Your task to perform on an android device: Open Android settings Image 0: 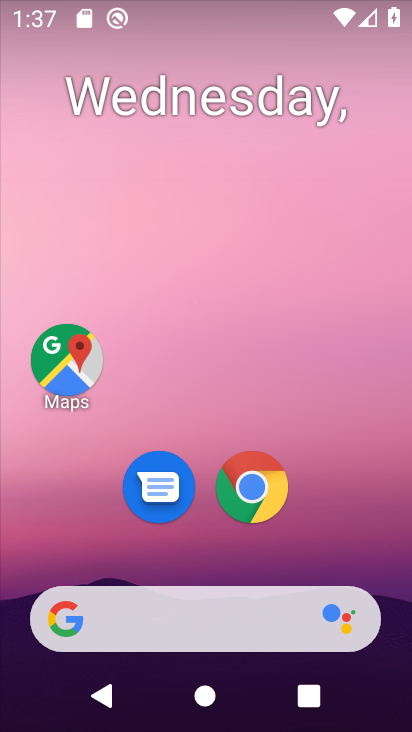
Step 0: drag from (290, 607) to (277, 59)
Your task to perform on an android device: Open Android settings Image 1: 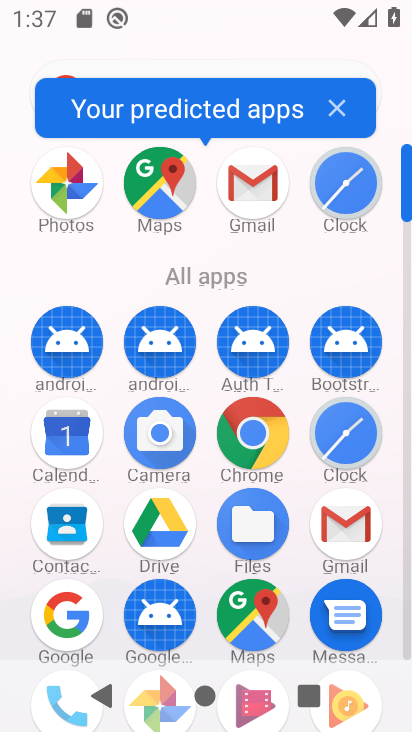
Step 1: drag from (303, 605) to (284, 242)
Your task to perform on an android device: Open Android settings Image 2: 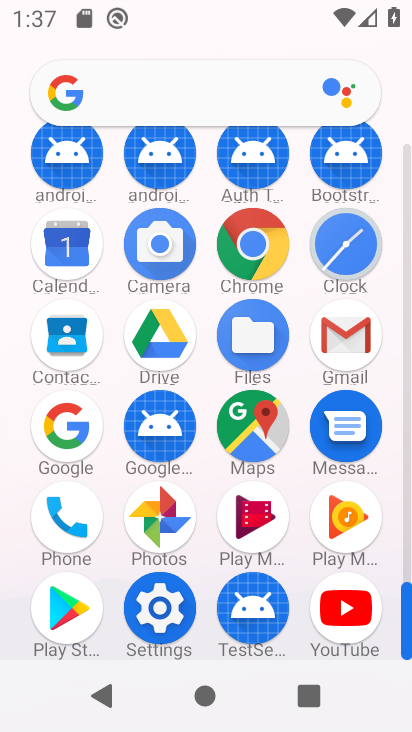
Step 2: click (171, 608)
Your task to perform on an android device: Open Android settings Image 3: 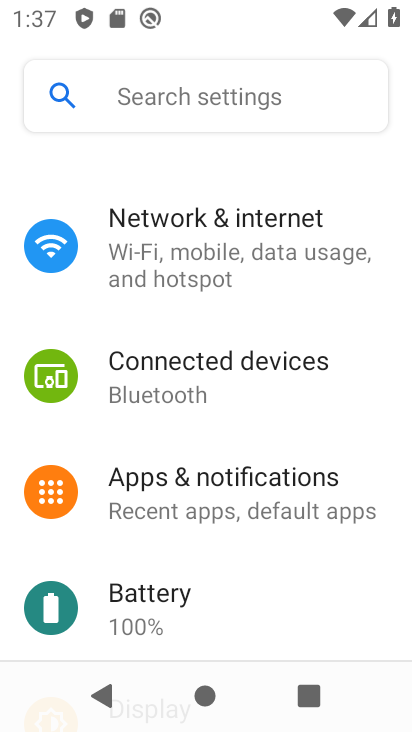
Step 3: drag from (299, 595) to (388, 3)
Your task to perform on an android device: Open Android settings Image 4: 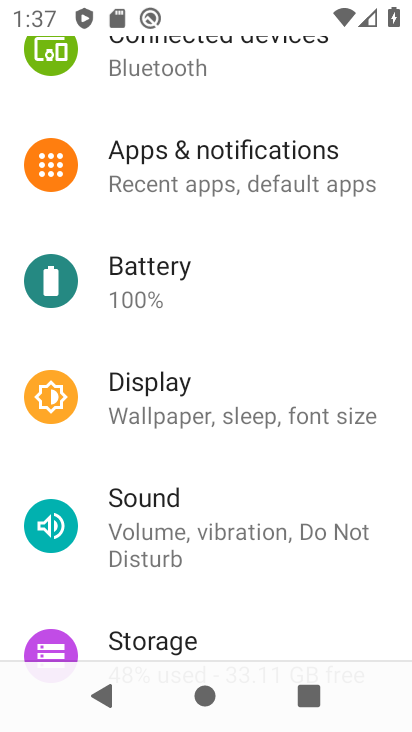
Step 4: drag from (300, 574) to (299, 54)
Your task to perform on an android device: Open Android settings Image 5: 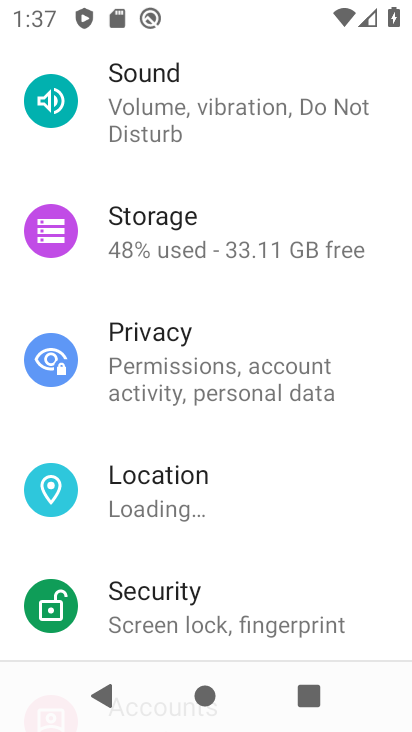
Step 5: drag from (238, 603) to (290, 2)
Your task to perform on an android device: Open Android settings Image 6: 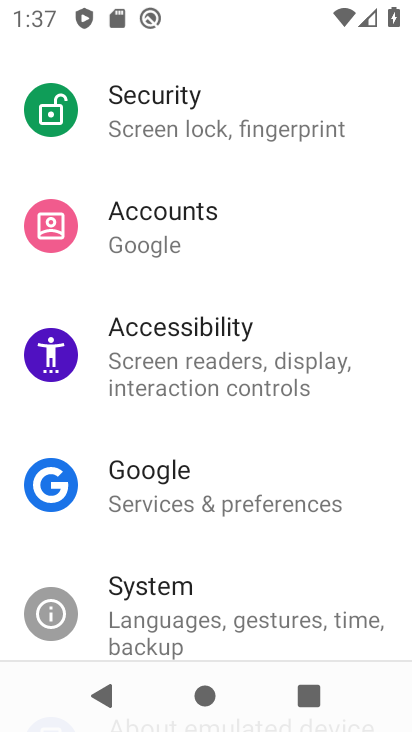
Step 6: drag from (249, 634) to (276, 173)
Your task to perform on an android device: Open Android settings Image 7: 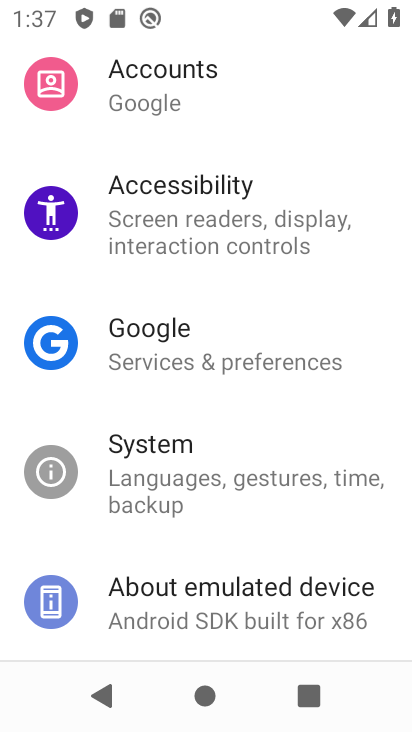
Step 7: click (255, 605)
Your task to perform on an android device: Open Android settings Image 8: 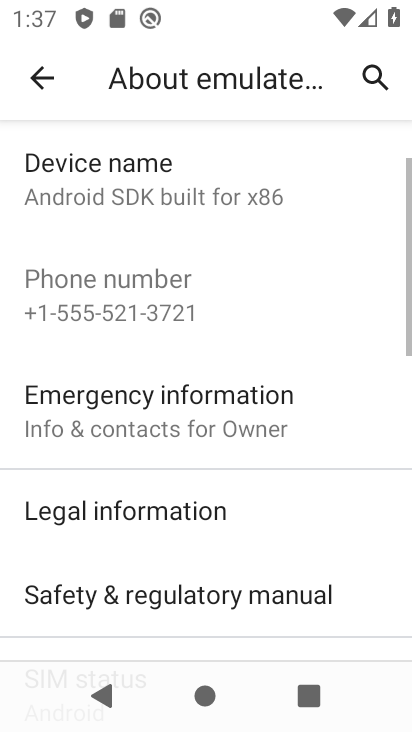
Step 8: drag from (255, 605) to (335, 47)
Your task to perform on an android device: Open Android settings Image 9: 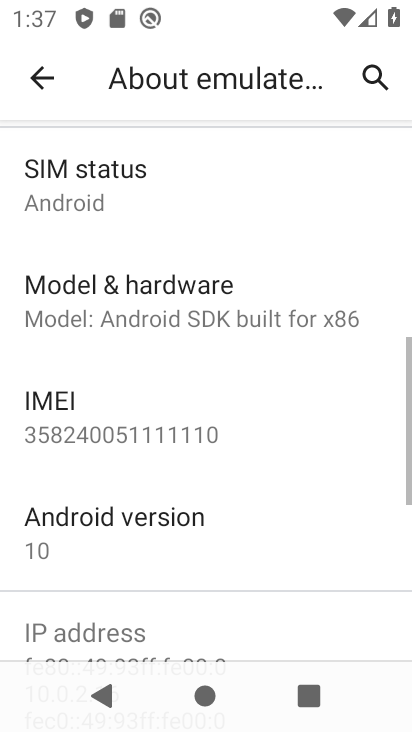
Step 9: drag from (214, 615) to (273, 134)
Your task to perform on an android device: Open Android settings Image 10: 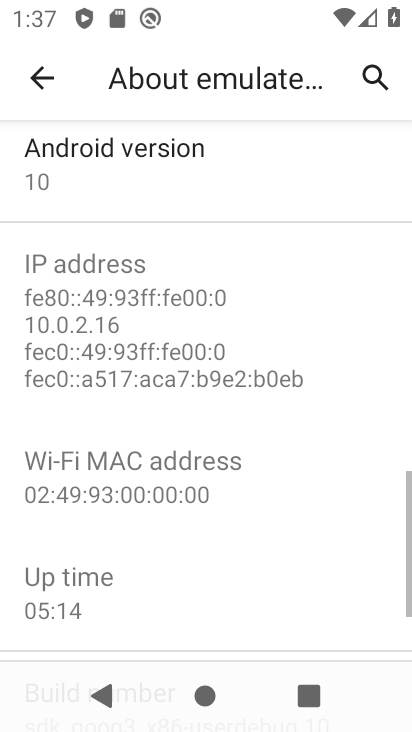
Step 10: click (192, 151)
Your task to perform on an android device: Open Android settings Image 11: 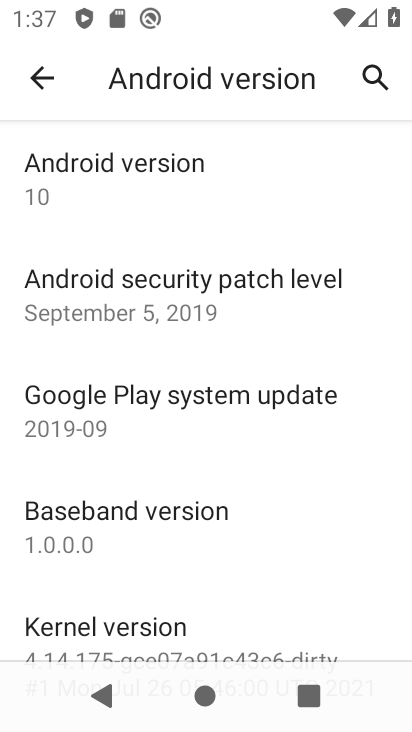
Step 11: task complete